Your task to perform on an android device: check google app version Image 0: 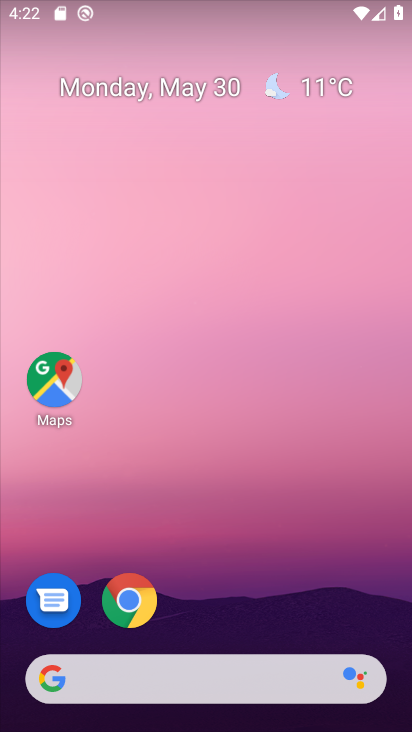
Step 0: drag from (252, 388) to (313, 0)
Your task to perform on an android device: check google app version Image 1: 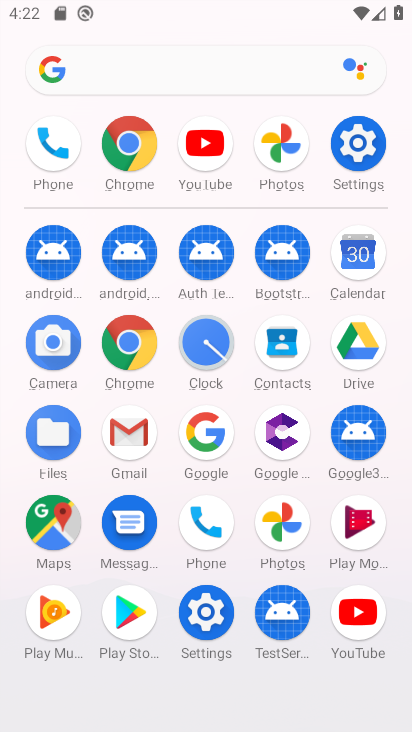
Step 1: click (362, 150)
Your task to perform on an android device: check google app version Image 2: 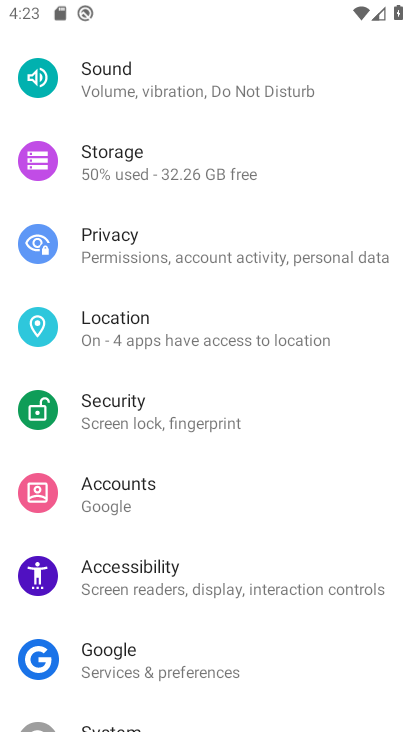
Step 2: drag from (170, 588) to (144, 243)
Your task to perform on an android device: check google app version Image 3: 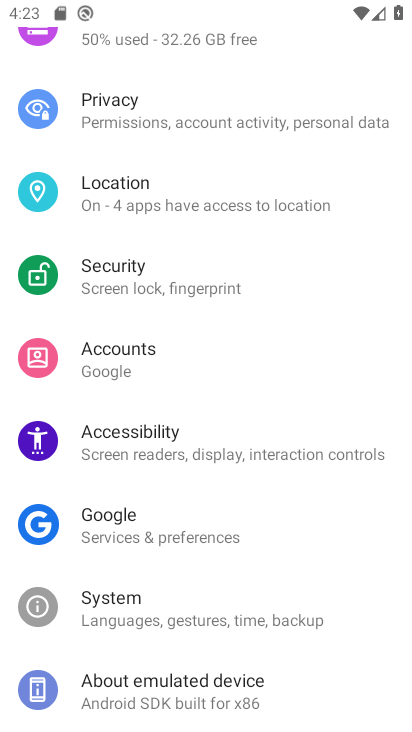
Step 3: drag from (202, 555) to (260, 147)
Your task to perform on an android device: check google app version Image 4: 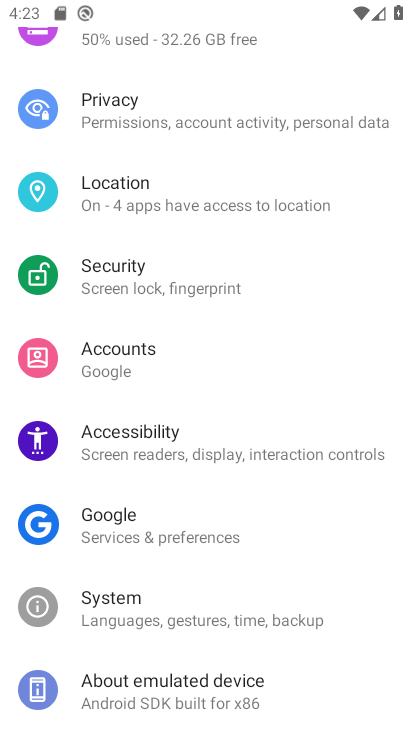
Step 4: click (136, 689)
Your task to perform on an android device: check google app version Image 5: 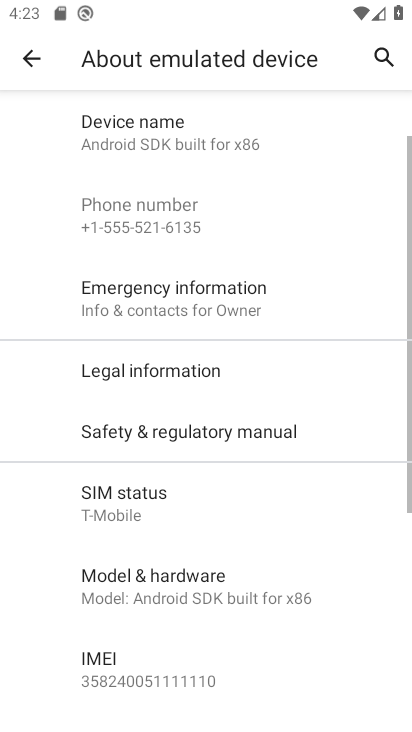
Step 5: drag from (150, 300) to (136, 623)
Your task to perform on an android device: check google app version Image 6: 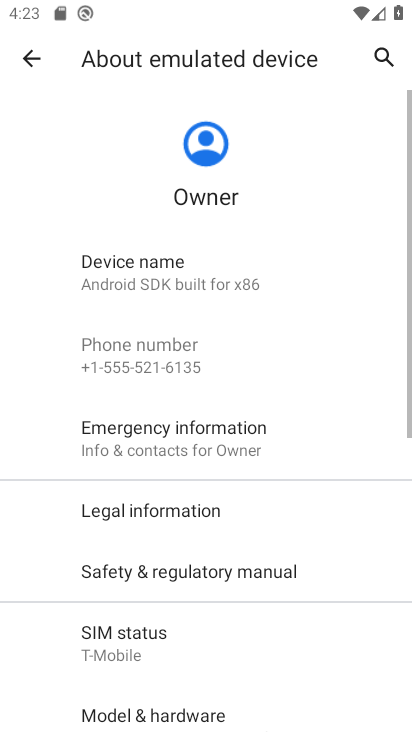
Step 6: drag from (169, 598) to (187, 154)
Your task to perform on an android device: check google app version Image 7: 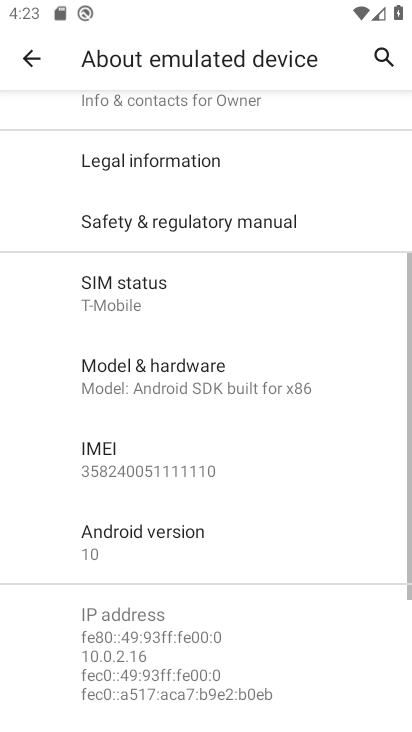
Step 7: click (113, 555)
Your task to perform on an android device: check google app version Image 8: 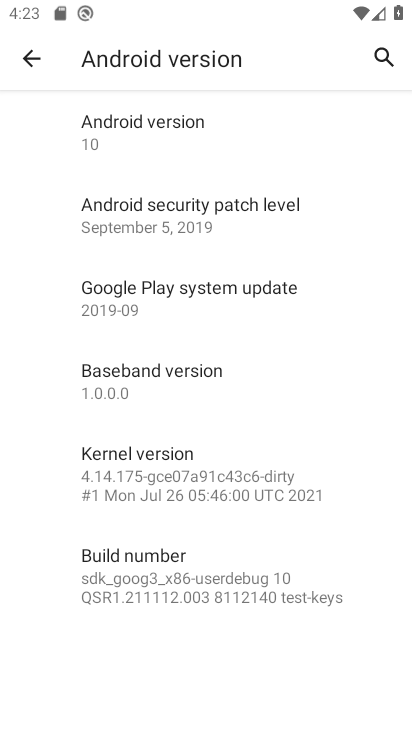
Step 8: task complete